Your task to perform on an android device: turn on data saver in the chrome app Image 0: 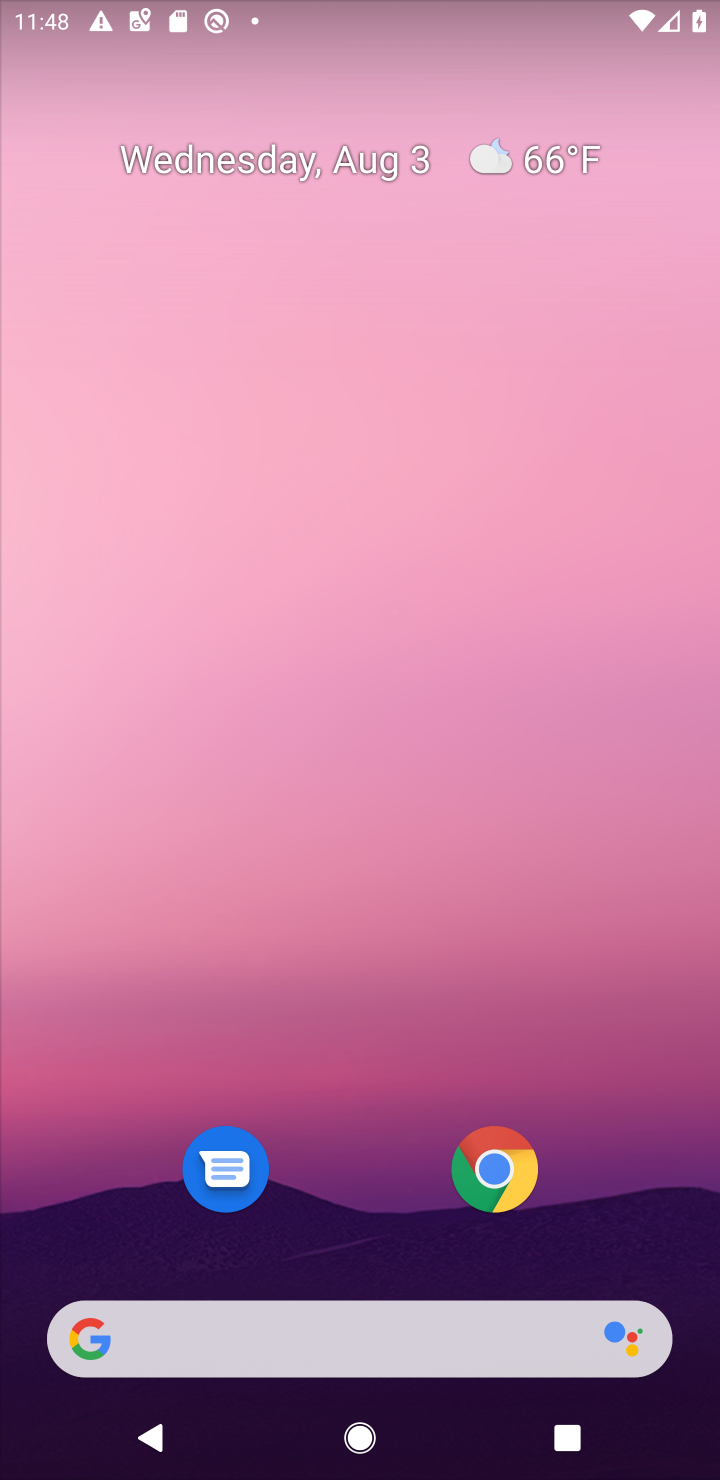
Step 0: click (494, 1182)
Your task to perform on an android device: turn on data saver in the chrome app Image 1: 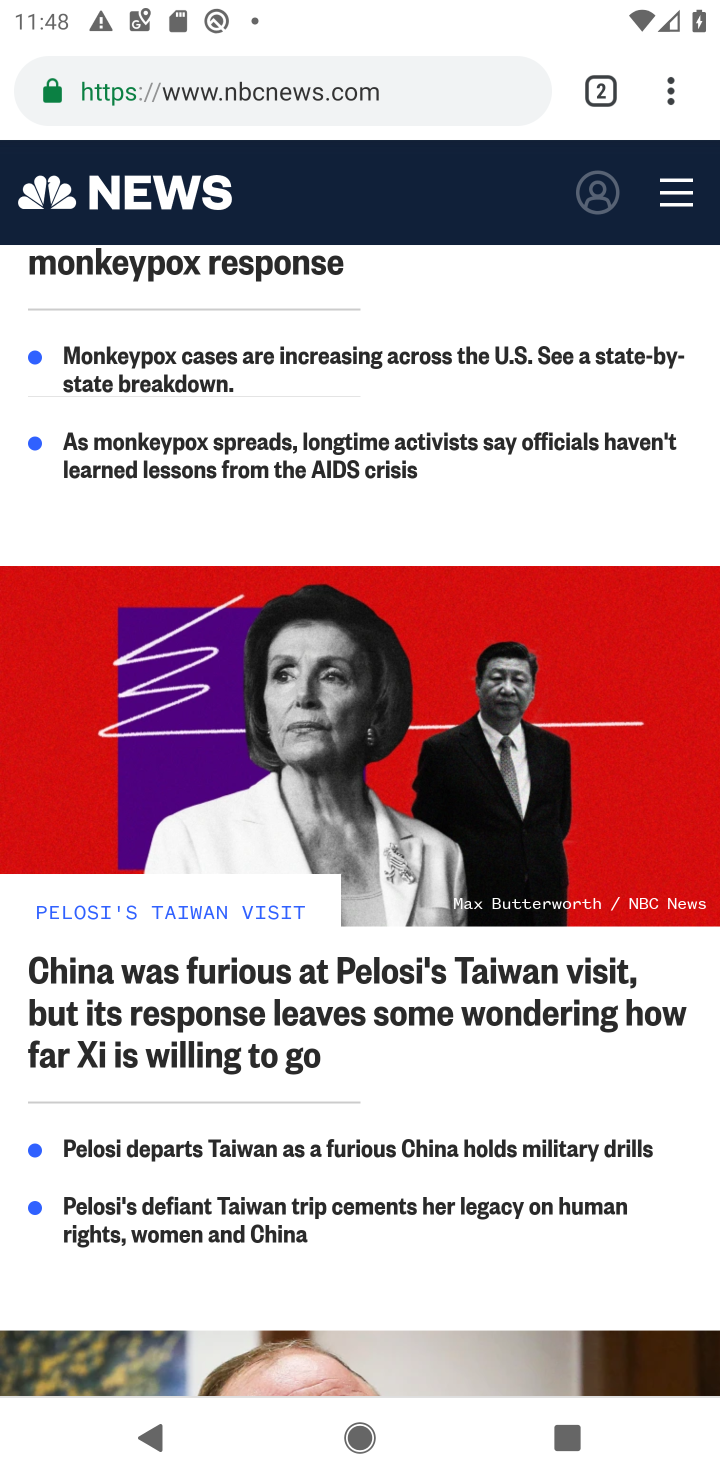
Step 1: drag from (670, 93) to (406, 1114)
Your task to perform on an android device: turn on data saver in the chrome app Image 2: 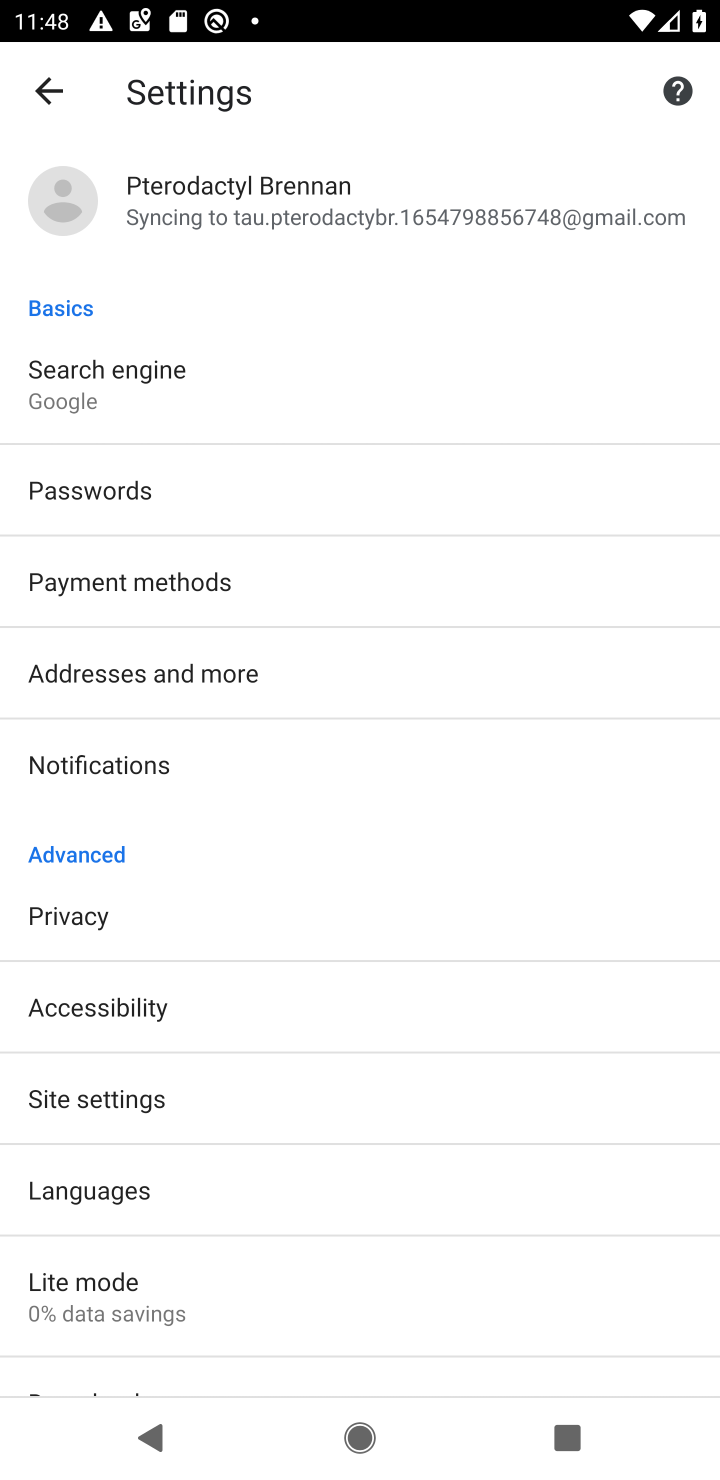
Step 2: click (70, 1277)
Your task to perform on an android device: turn on data saver in the chrome app Image 3: 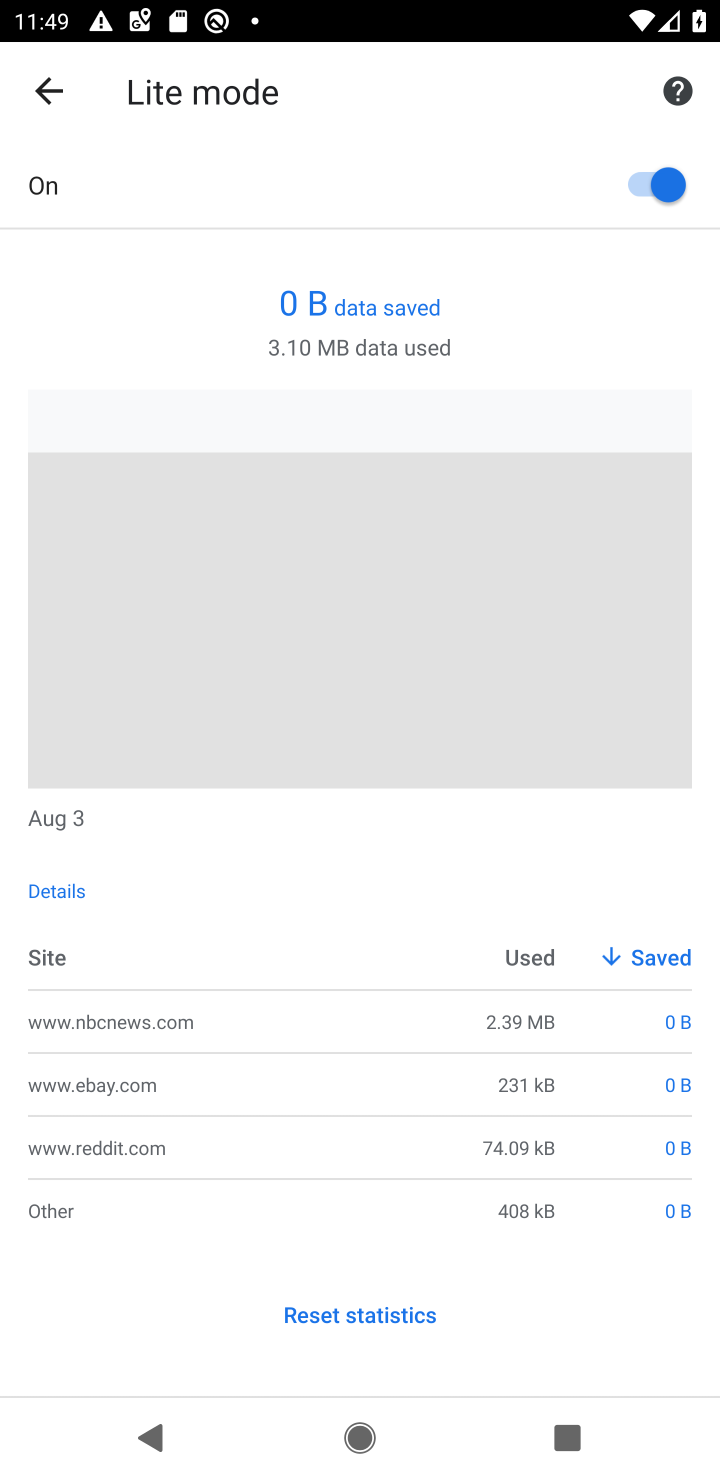
Step 3: task complete